Your task to perform on an android device: Open ESPN.com Image 0: 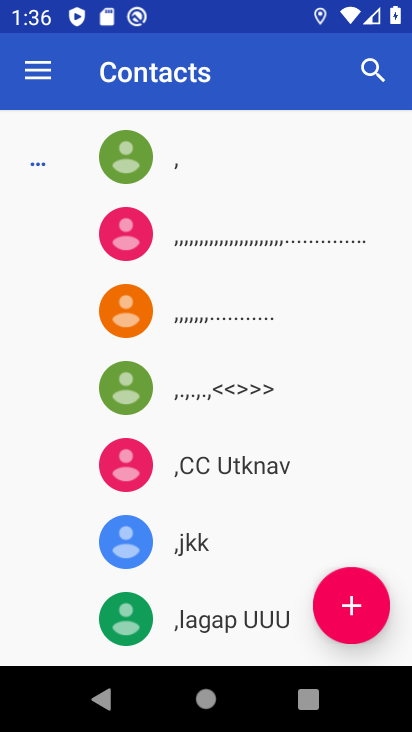
Step 0: press home button
Your task to perform on an android device: Open ESPN.com Image 1: 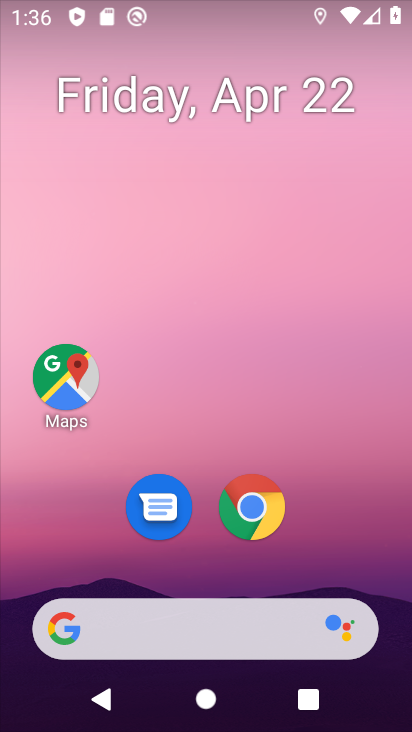
Step 1: drag from (156, 642) to (320, 69)
Your task to perform on an android device: Open ESPN.com Image 2: 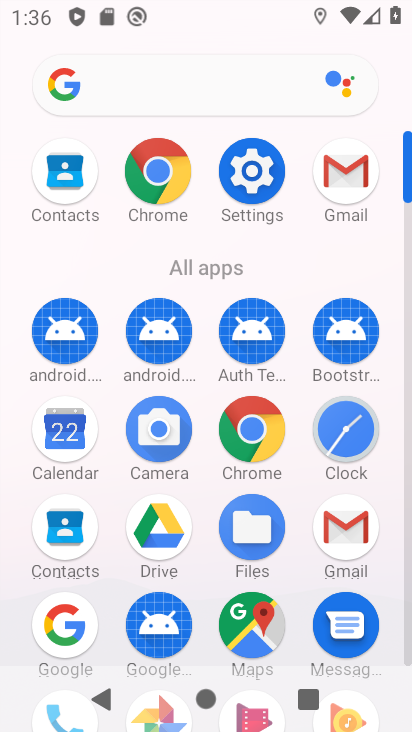
Step 2: click (155, 184)
Your task to perform on an android device: Open ESPN.com Image 3: 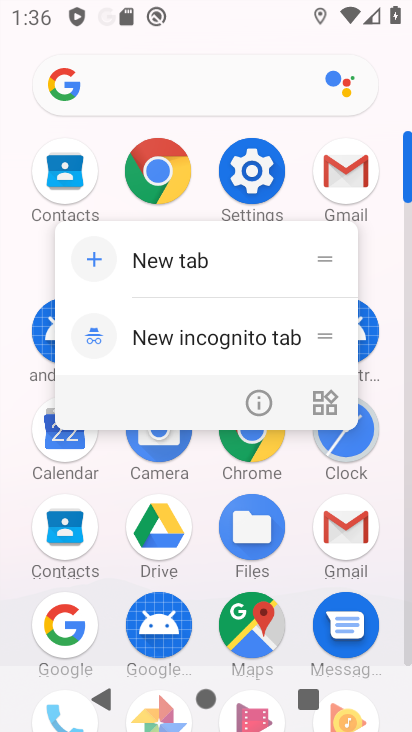
Step 3: click (164, 187)
Your task to perform on an android device: Open ESPN.com Image 4: 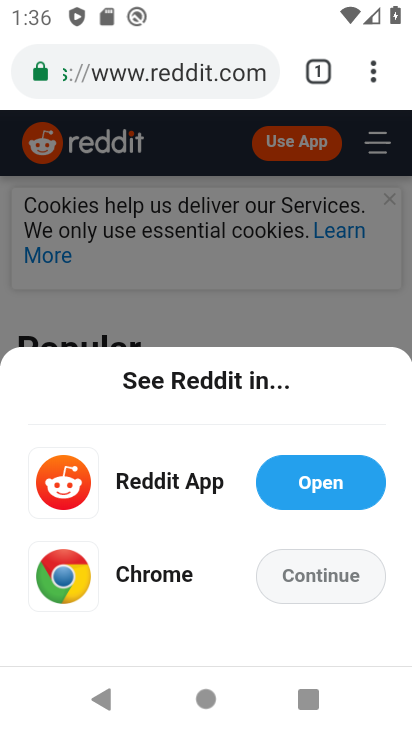
Step 4: click (365, 85)
Your task to perform on an android device: Open ESPN.com Image 5: 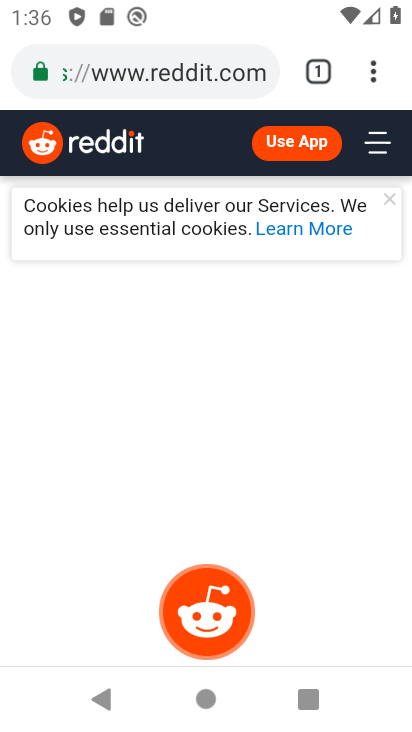
Step 5: click (368, 89)
Your task to perform on an android device: Open ESPN.com Image 6: 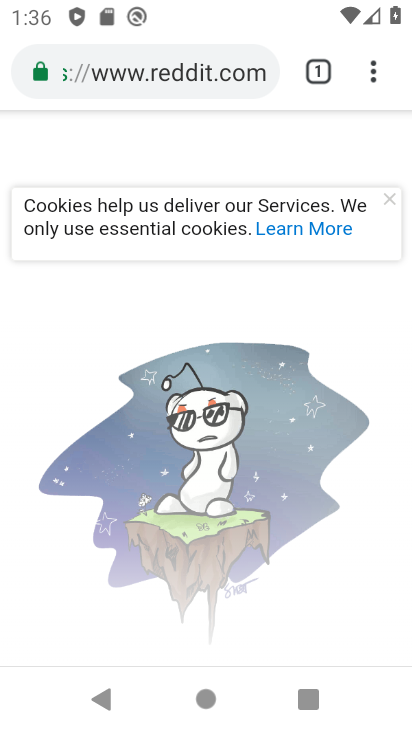
Step 6: click (359, 83)
Your task to perform on an android device: Open ESPN.com Image 7: 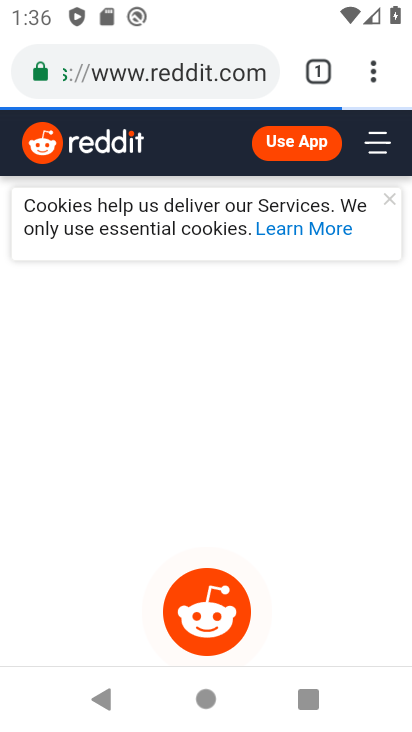
Step 7: drag from (371, 80) to (127, 136)
Your task to perform on an android device: Open ESPN.com Image 8: 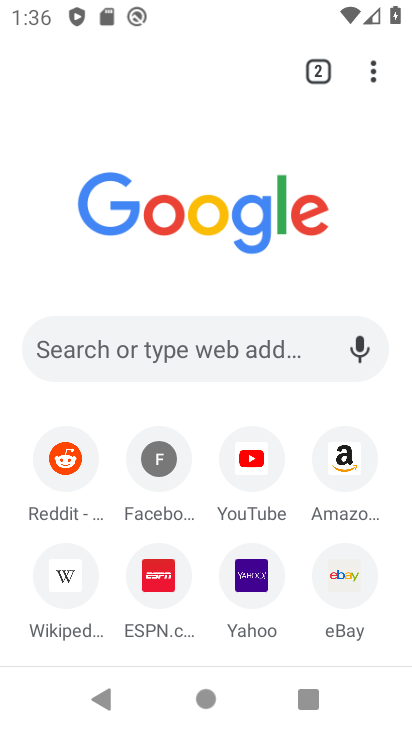
Step 8: click (142, 601)
Your task to perform on an android device: Open ESPN.com Image 9: 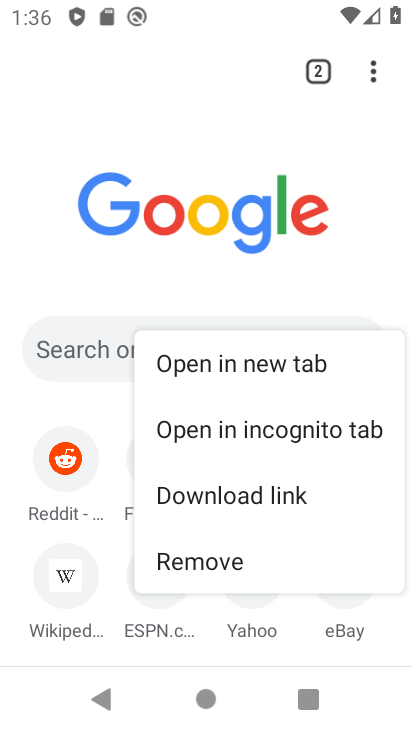
Step 9: click (157, 632)
Your task to perform on an android device: Open ESPN.com Image 10: 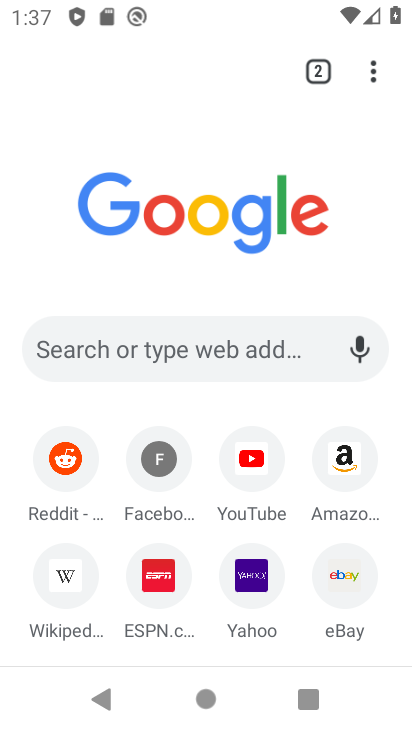
Step 10: click (165, 574)
Your task to perform on an android device: Open ESPN.com Image 11: 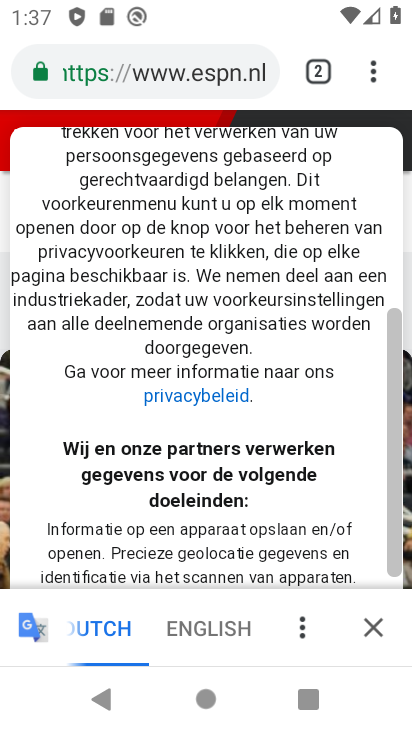
Step 11: task complete